Your task to perform on an android device: Check the news Image 0: 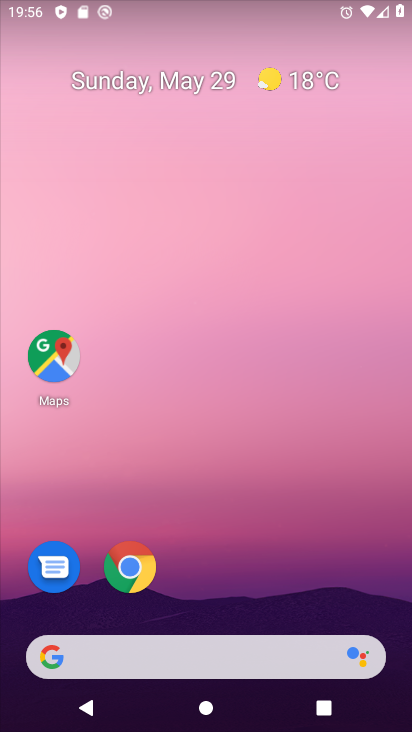
Step 0: drag from (2, 234) to (389, 207)
Your task to perform on an android device: Check the news Image 1: 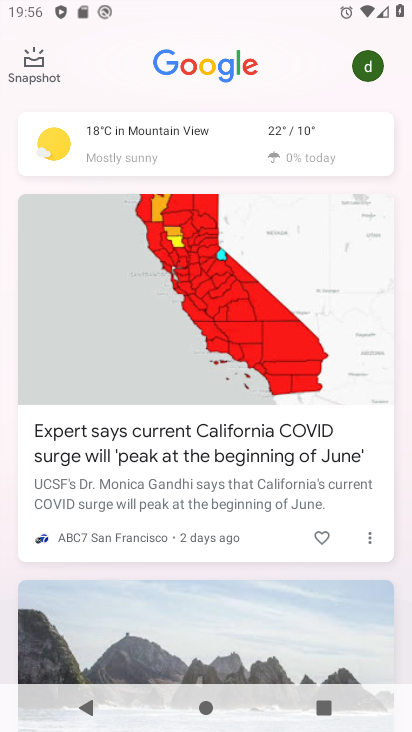
Step 1: task complete